Your task to perform on an android device: Go to display settings Image 0: 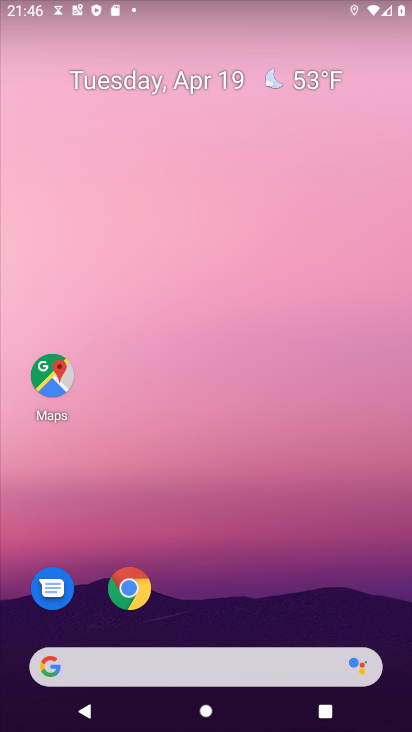
Step 0: drag from (216, 617) to (328, 42)
Your task to perform on an android device: Go to display settings Image 1: 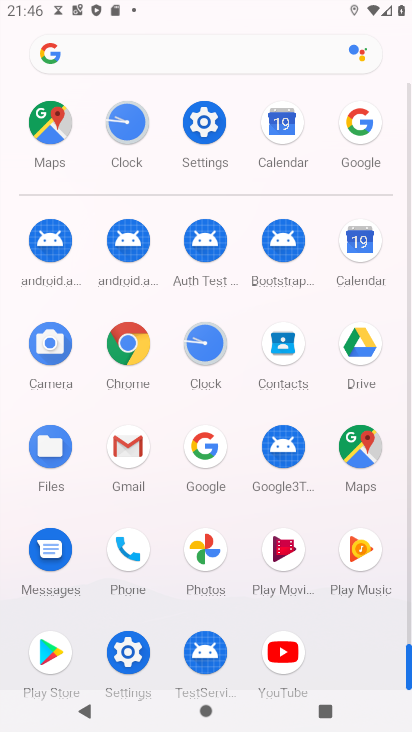
Step 1: click (205, 122)
Your task to perform on an android device: Go to display settings Image 2: 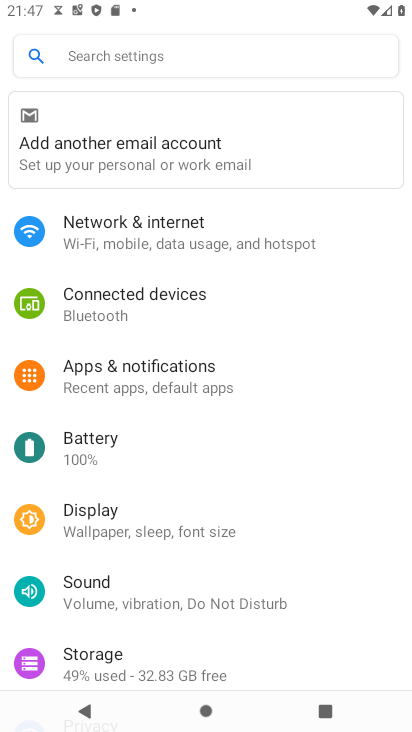
Step 2: click (135, 526)
Your task to perform on an android device: Go to display settings Image 3: 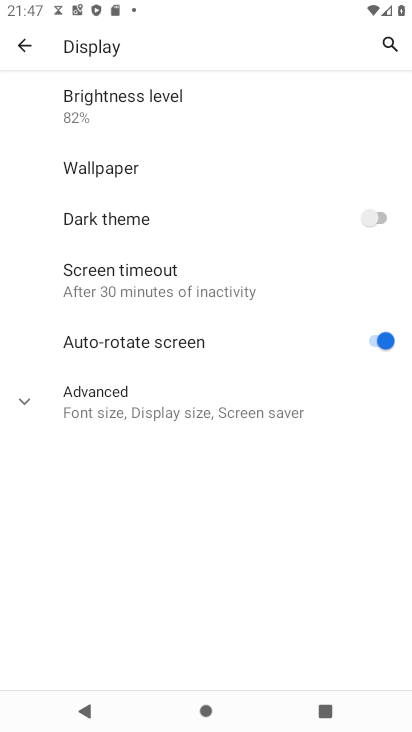
Step 3: task complete